Your task to perform on an android device: Open the web browser Image 0: 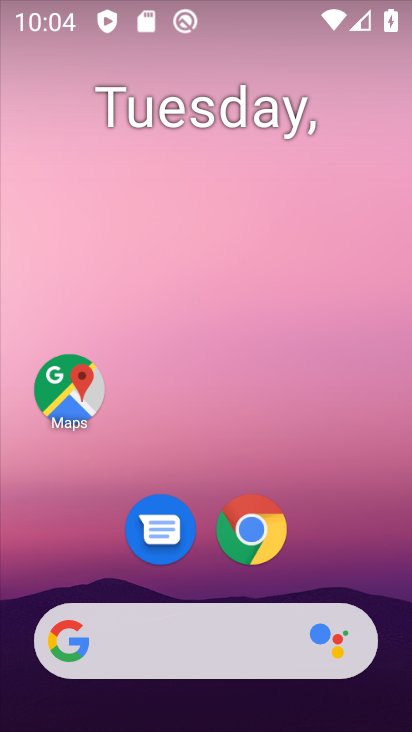
Step 0: drag from (93, 595) to (158, 266)
Your task to perform on an android device: Open the web browser Image 1: 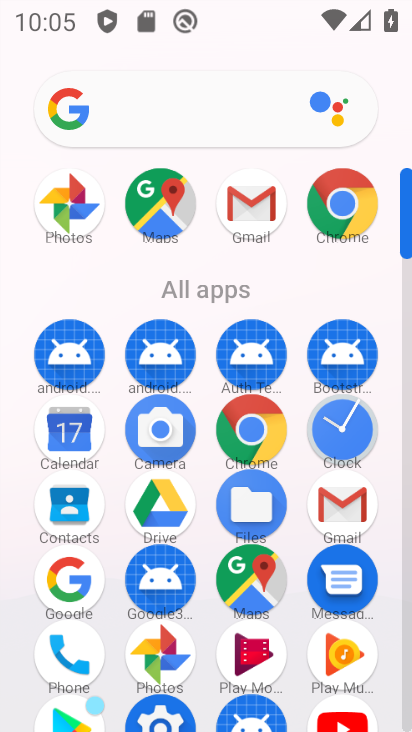
Step 1: click (71, 604)
Your task to perform on an android device: Open the web browser Image 2: 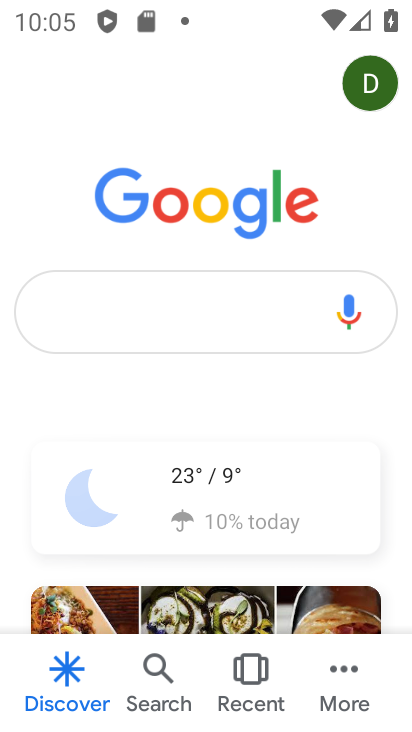
Step 2: task complete